Your task to perform on an android device: delete location history Image 0: 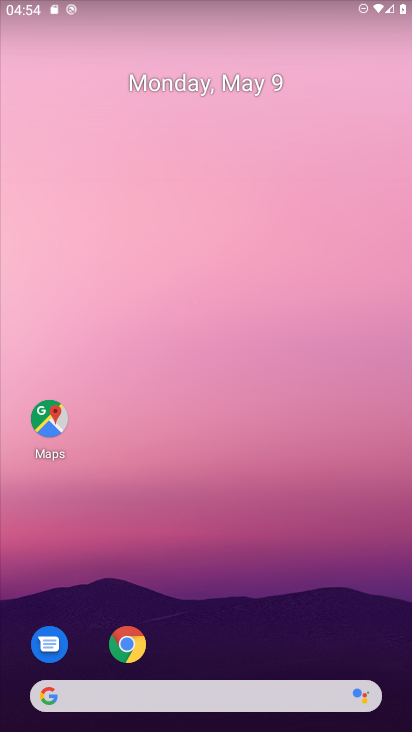
Step 0: press home button
Your task to perform on an android device: delete location history Image 1: 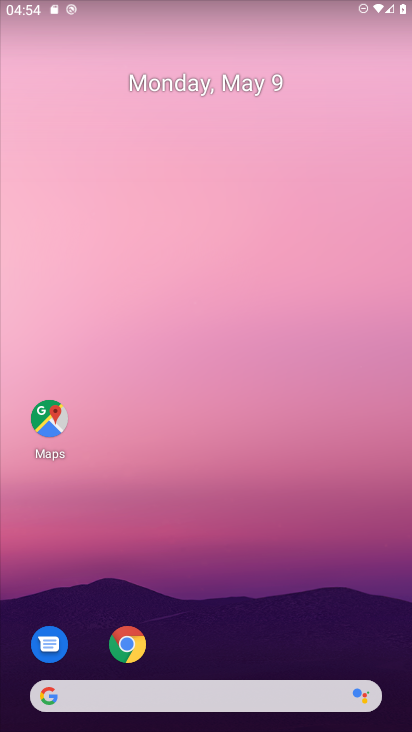
Step 1: click (54, 425)
Your task to perform on an android device: delete location history Image 2: 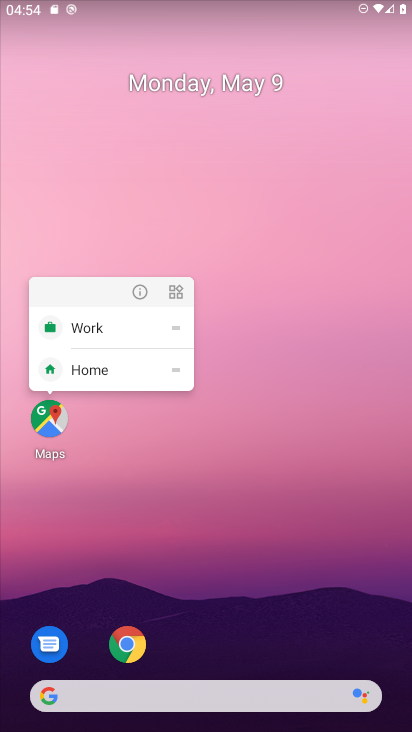
Step 2: click (49, 421)
Your task to perform on an android device: delete location history Image 3: 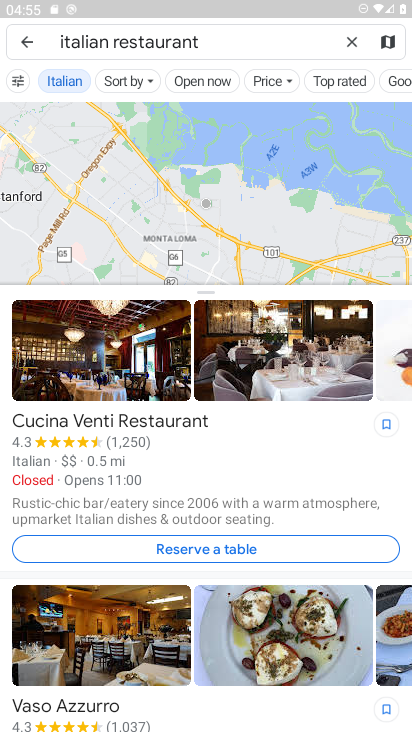
Step 3: click (352, 38)
Your task to perform on an android device: delete location history Image 4: 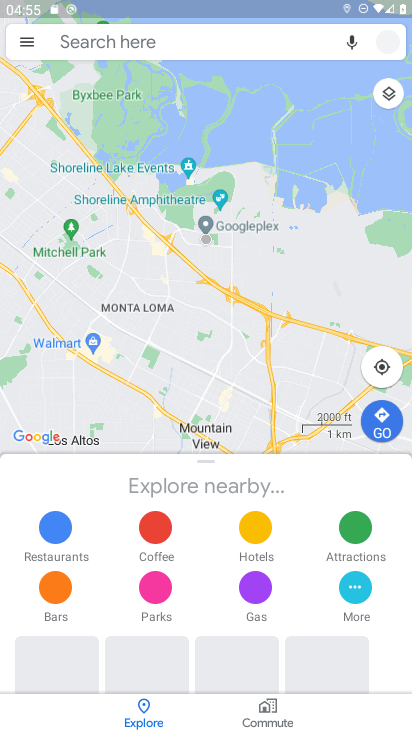
Step 4: click (23, 40)
Your task to perform on an android device: delete location history Image 5: 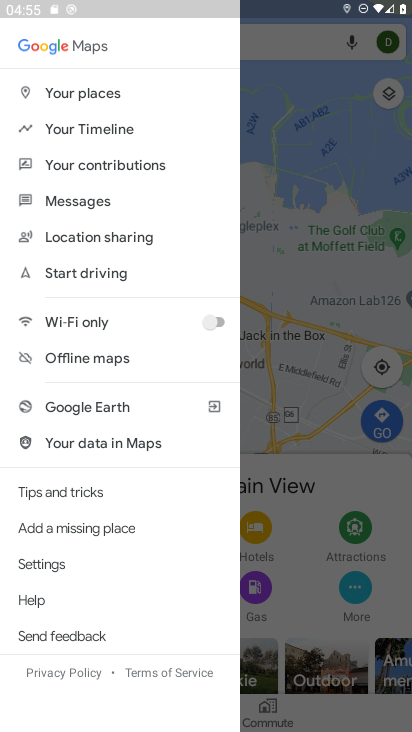
Step 5: click (49, 564)
Your task to perform on an android device: delete location history Image 6: 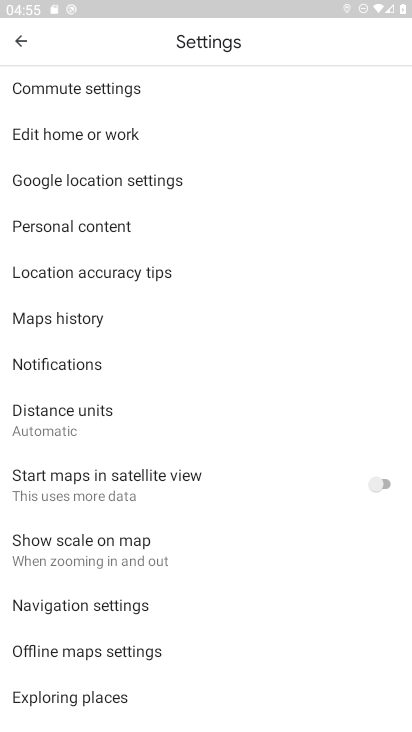
Step 6: click (73, 231)
Your task to perform on an android device: delete location history Image 7: 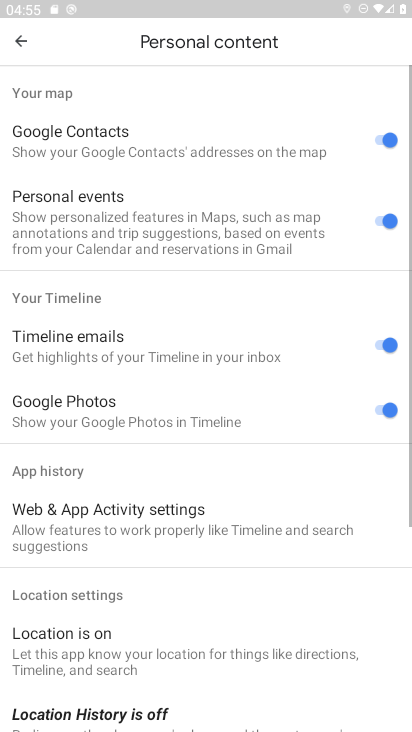
Step 7: drag from (154, 617) to (171, 351)
Your task to perform on an android device: delete location history Image 8: 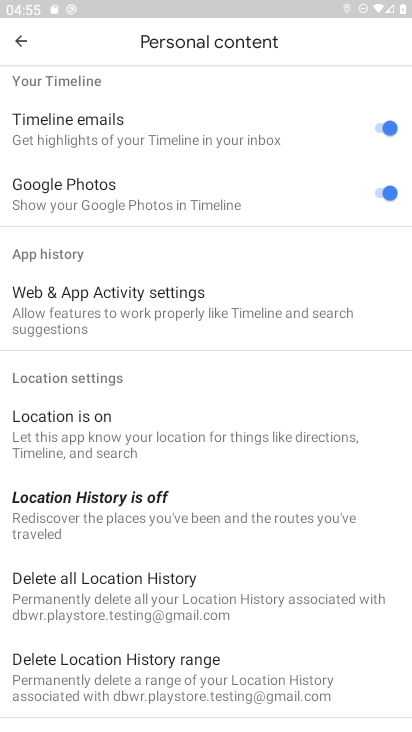
Step 8: click (140, 575)
Your task to perform on an android device: delete location history Image 9: 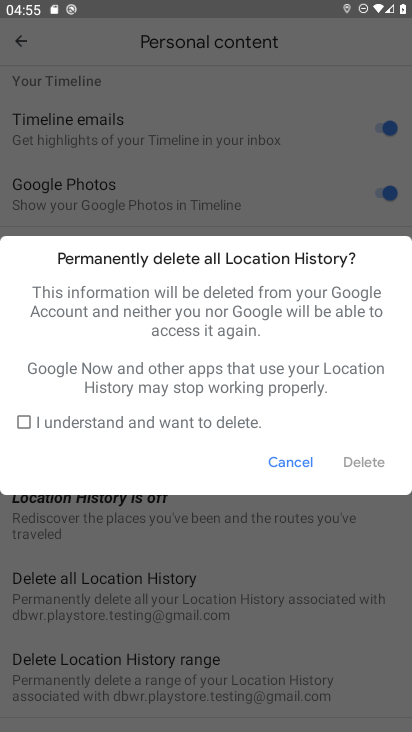
Step 9: click (18, 418)
Your task to perform on an android device: delete location history Image 10: 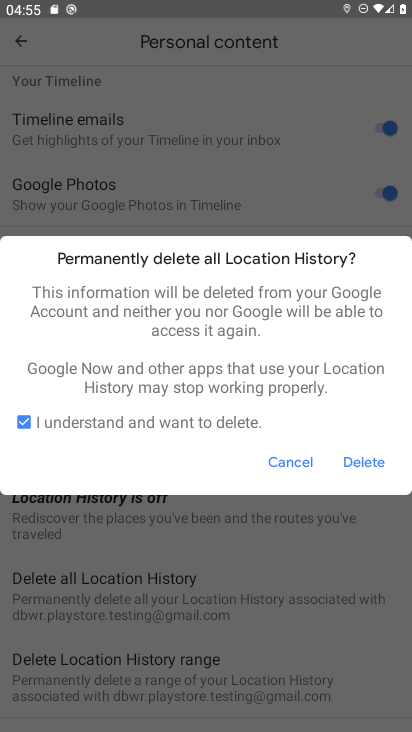
Step 10: click (369, 464)
Your task to perform on an android device: delete location history Image 11: 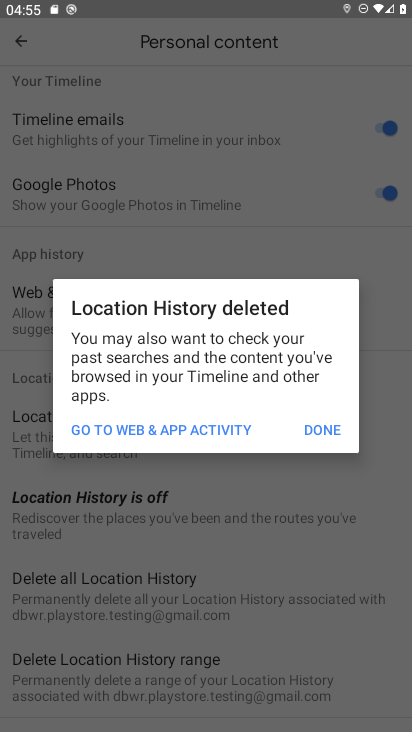
Step 11: click (333, 432)
Your task to perform on an android device: delete location history Image 12: 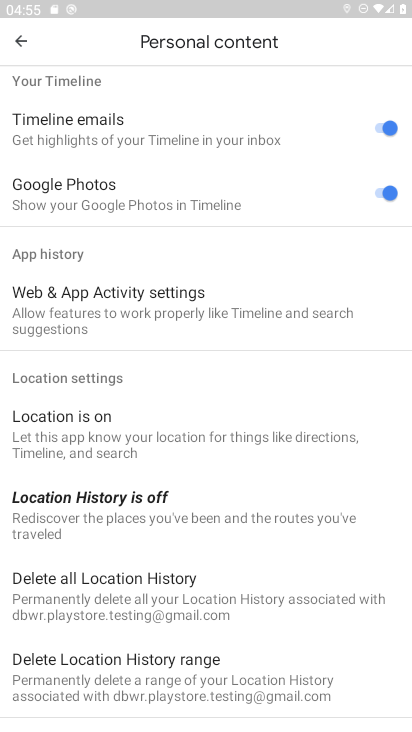
Step 12: task complete